Your task to perform on an android device: turn on the 12-hour format for clock Image 0: 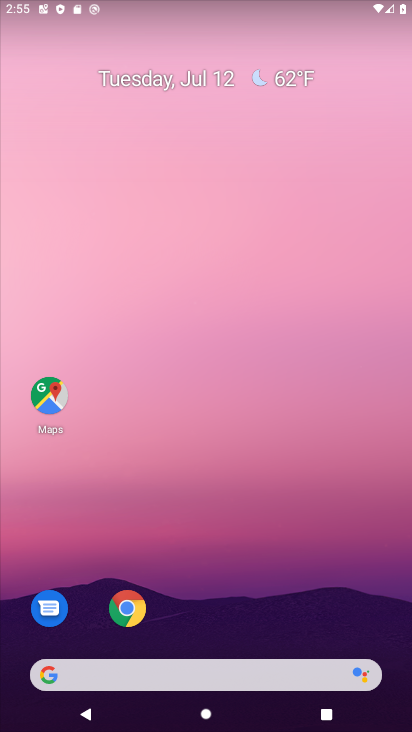
Step 0: press home button
Your task to perform on an android device: turn on the 12-hour format for clock Image 1: 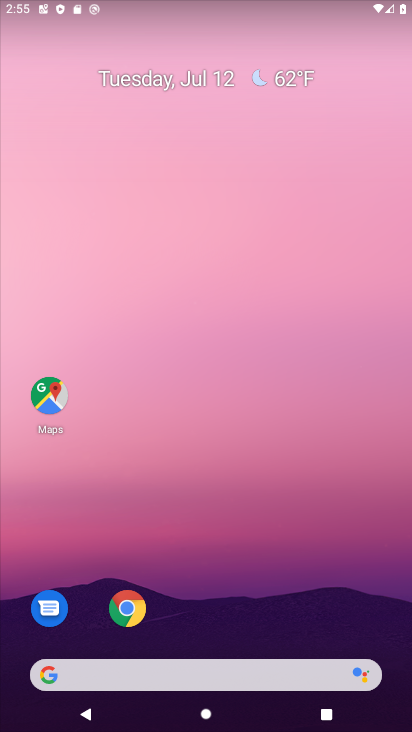
Step 1: drag from (167, 675) to (329, 102)
Your task to perform on an android device: turn on the 12-hour format for clock Image 2: 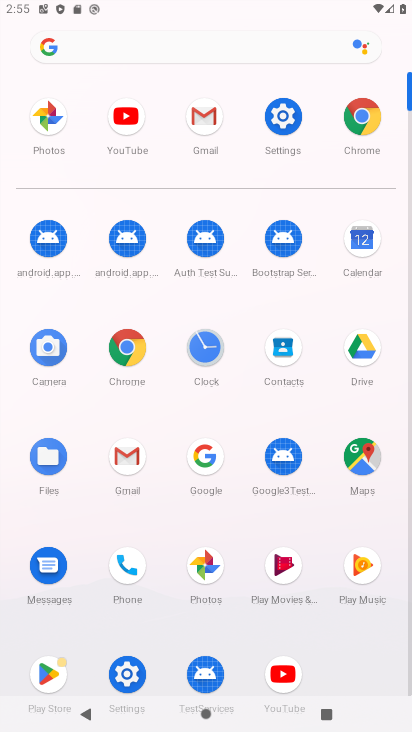
Step 2: click (200, 342)
Your task to perform on an android device: turn on the 12-hour format for clock Image 3: 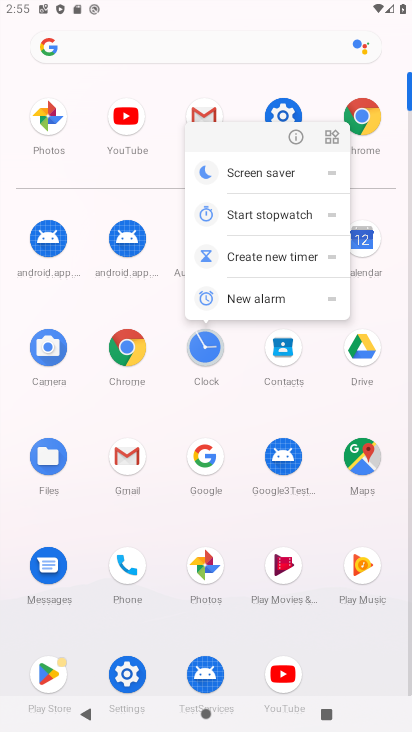
Step 3: click (202, 349)
Your task to perform on an android device: turn on the 12-hour format for clock Image 4: 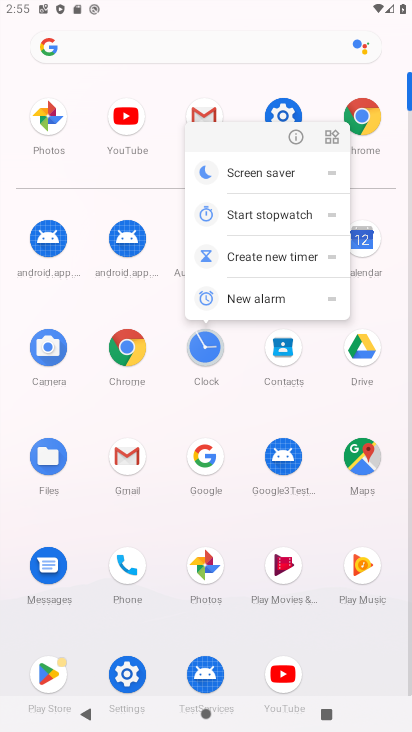
Step 4: click (202, 349)
Your task to perform on an android device: turn on the 12-hour format for clock Image 5: 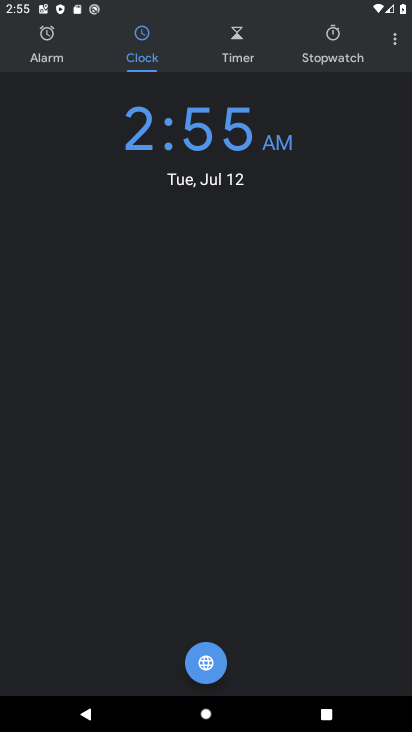
Step 5: click (394, 39)
Your task to perform on an android device: turn on the 12-hour format for clock Image 6: 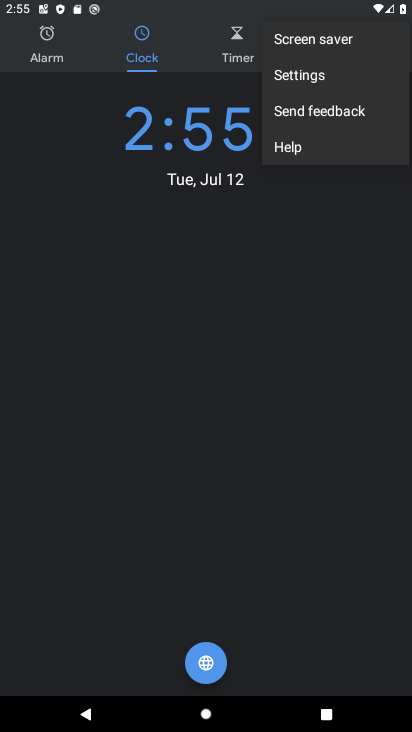
Step 6: click (308, 77)
Your task to perform on an android device: turn on the 12-hour format for clock Image 7: 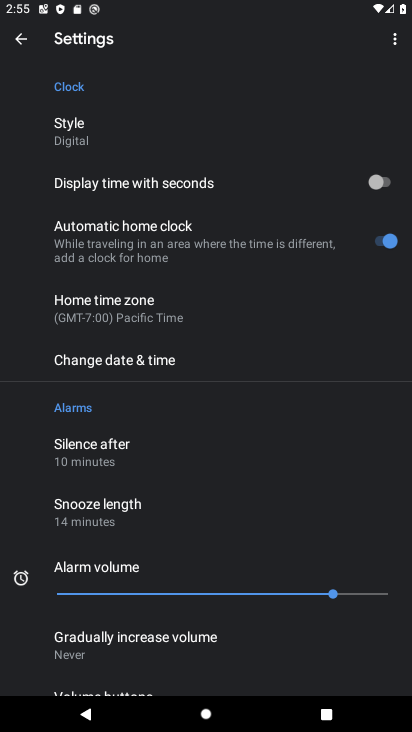
Step 7: click (105, 351)
Your task to perform on an android device: turn on the 12-hour format for clock Image 8: 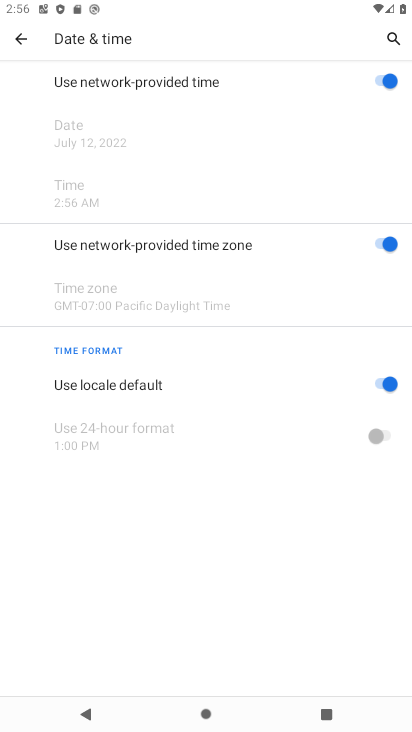
Step 8: task complete